Your task to perform on an android device: Show the shopping cart on bestbuy. Add "alienware aurora" to the cart on bestbuy Image 0: 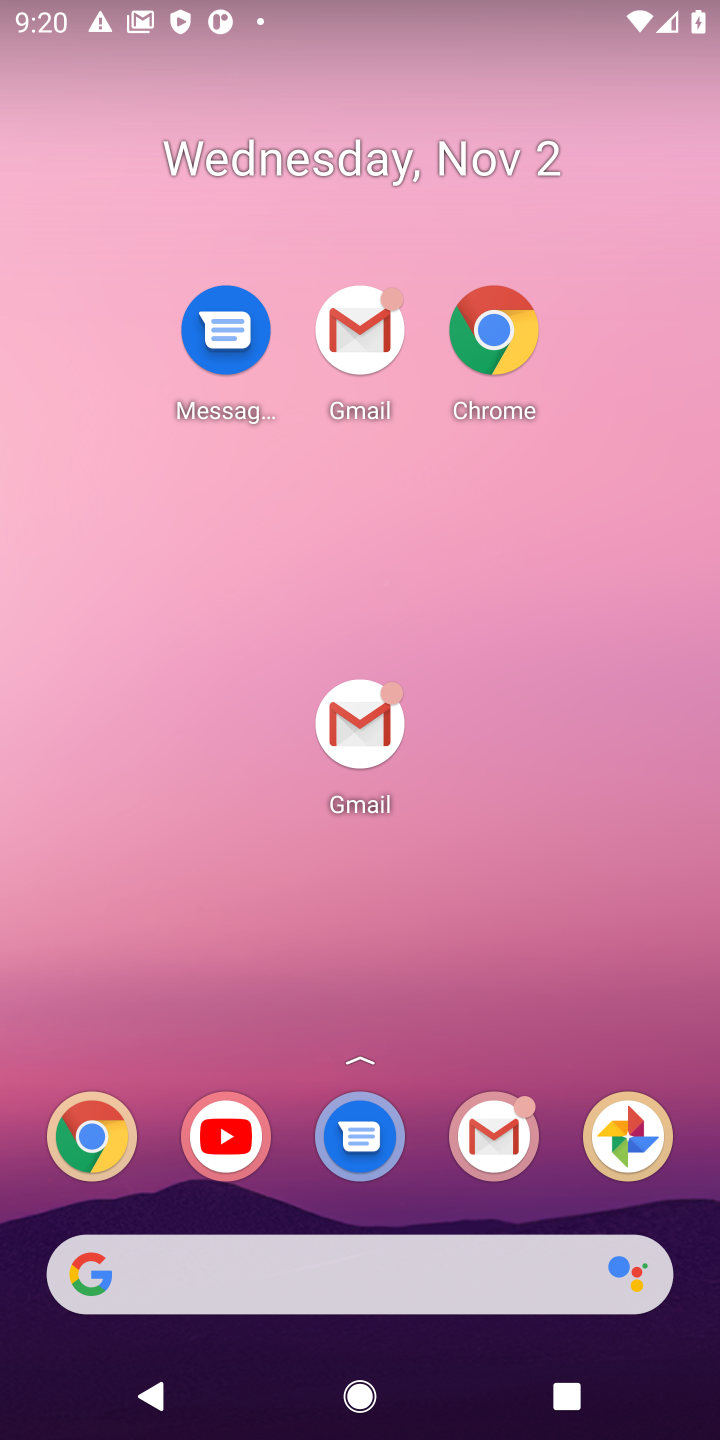
Step 0: drag from (306, 1215) to (297, 228)
Your task to perform on an android device: Show the shopping cart on bestbuy. Add "alienware aurora" to the cart on bestbuy Image 1: 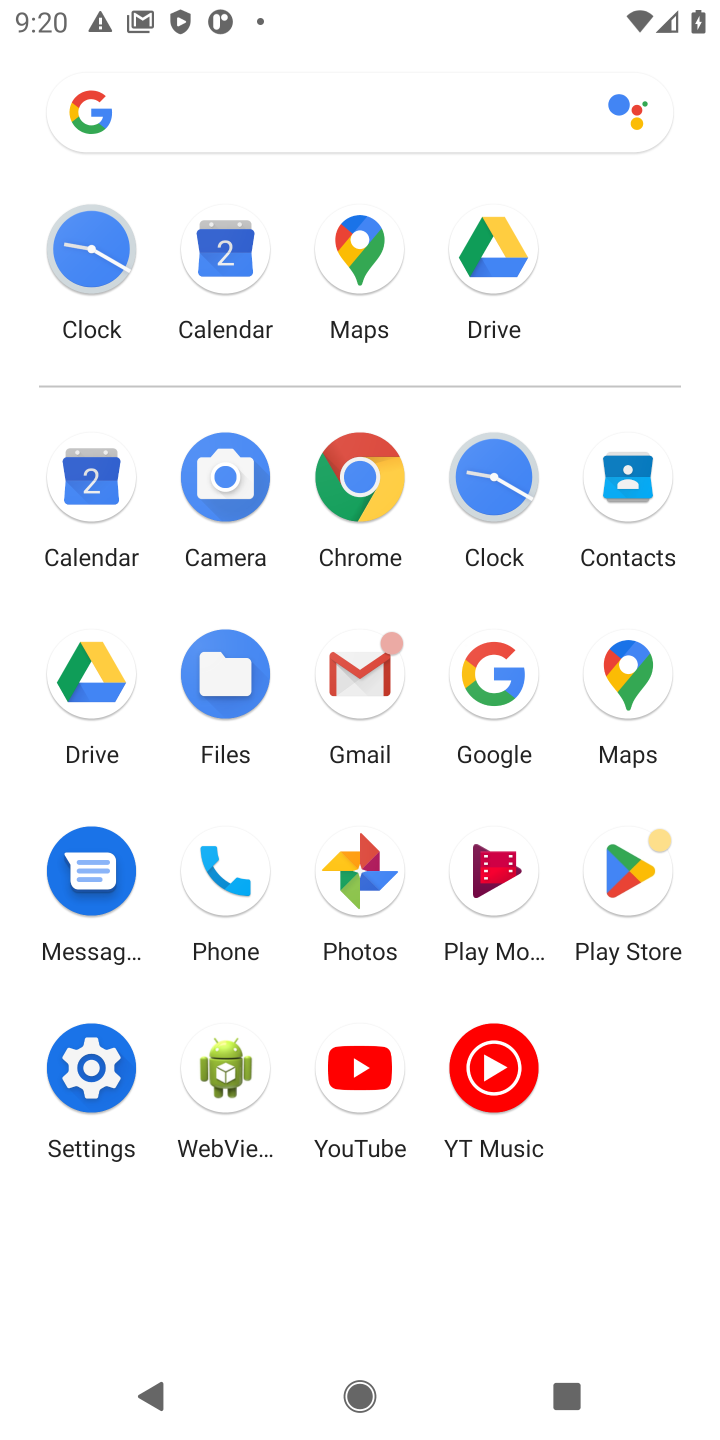
Step 1: click (481, 665)
Your task to perform on an android device: Show the shopping cart on bestbuy. Add "alienware aurora" to the cart on bestbuy Image 2: 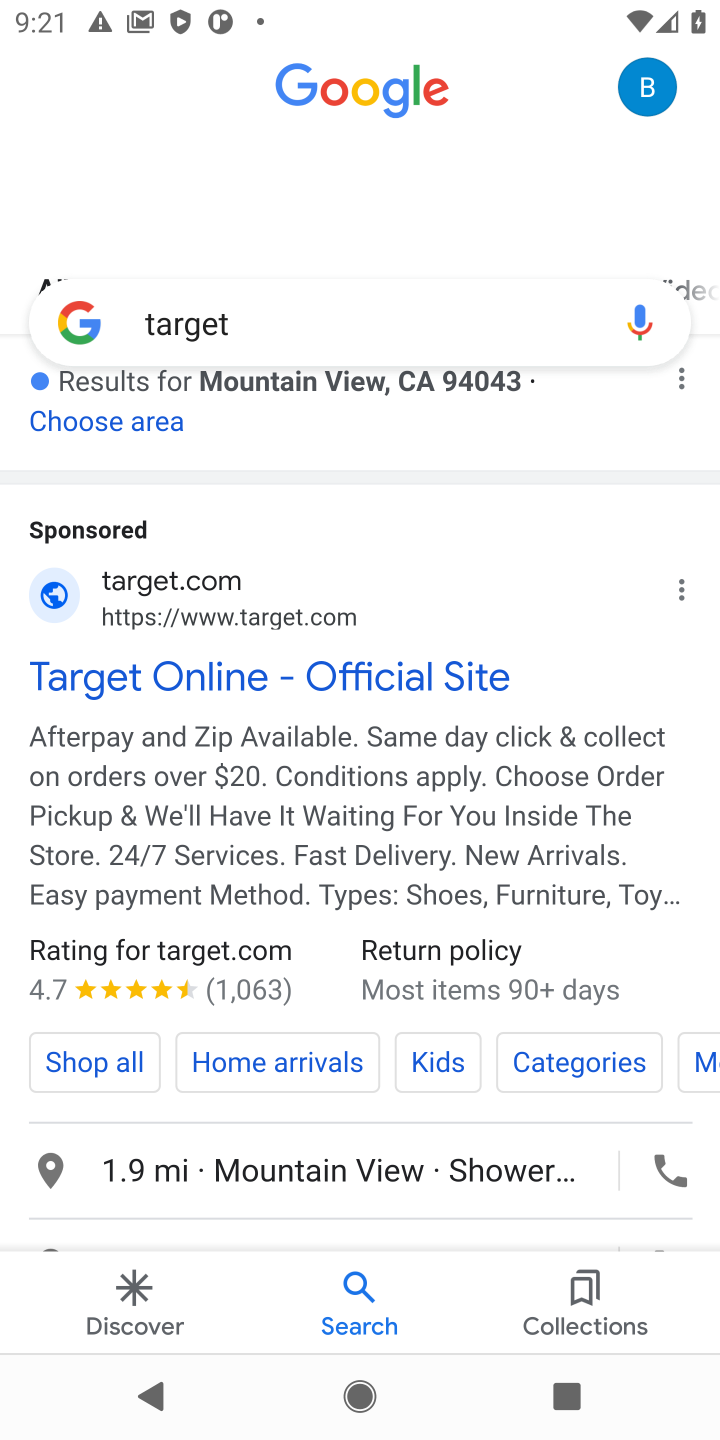
Step 2: click (336, 311)
Your task to perform on an android device: Show the shopping cart on bestbuy. Add "alienware aurora" to the cart on bestbuy Image 3: 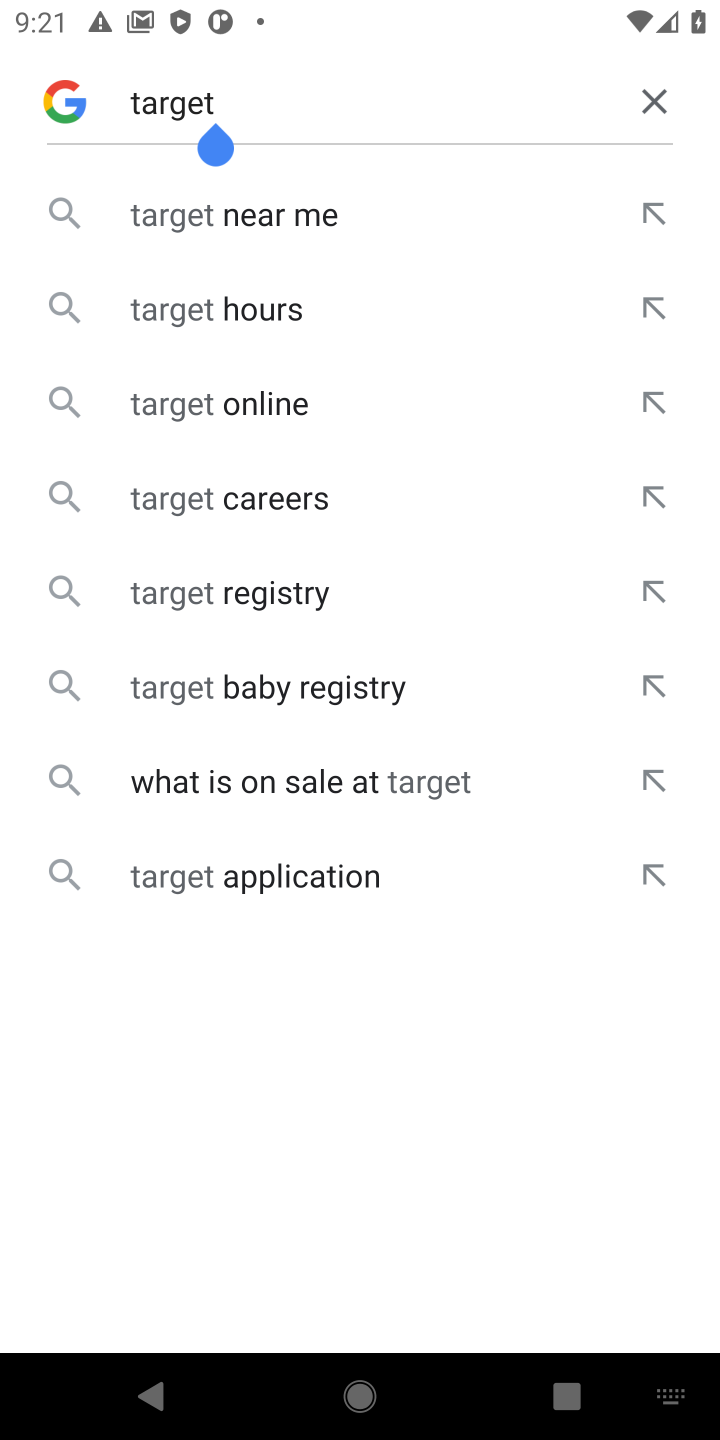
Step 3: click (646, 91)
Your task to perform on an android device: Show the shopping cart on bestbuy. Add "alienware aurora" to the cart on bestbuy Image 4: 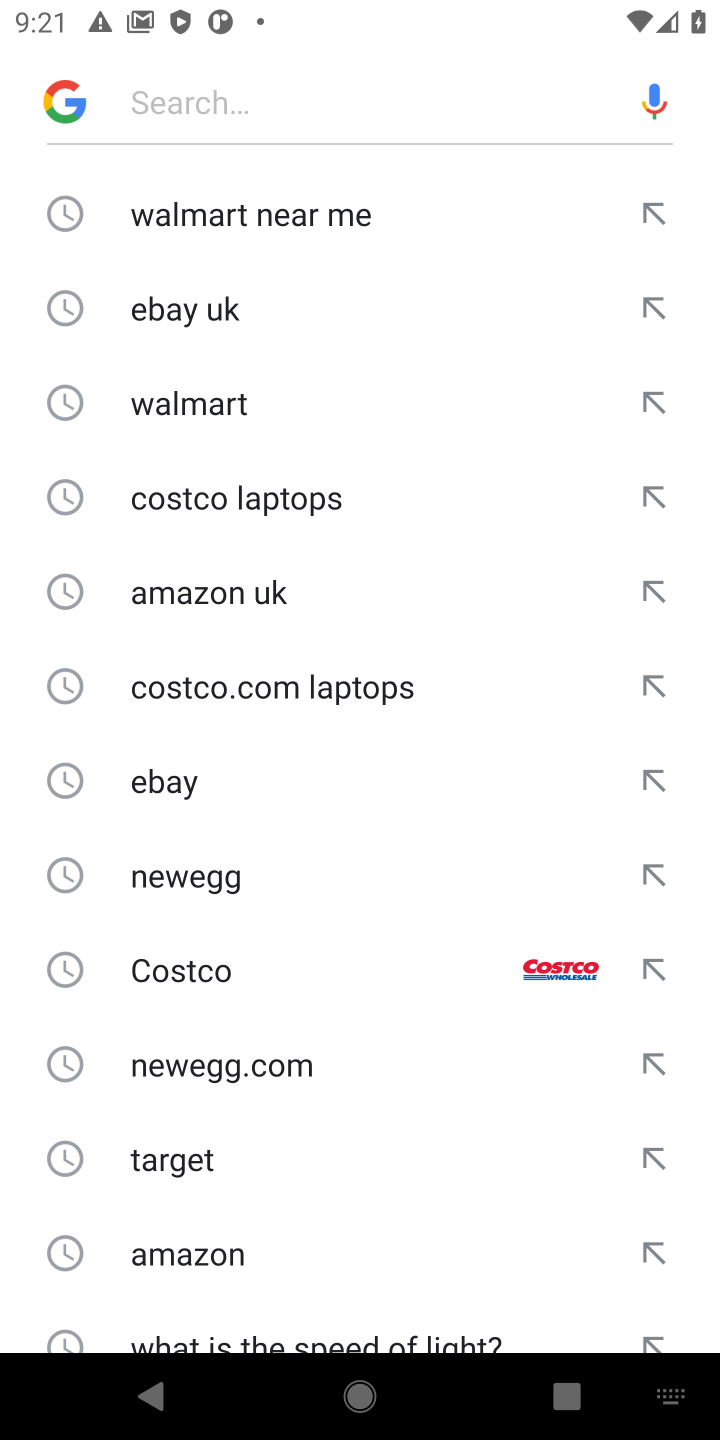
Step 4: click (272, 113)
Your task to perform on an android device: Show the shopping cart on bestbuy. Add "alienware aurora" to the cart on bestbuy Image 5: 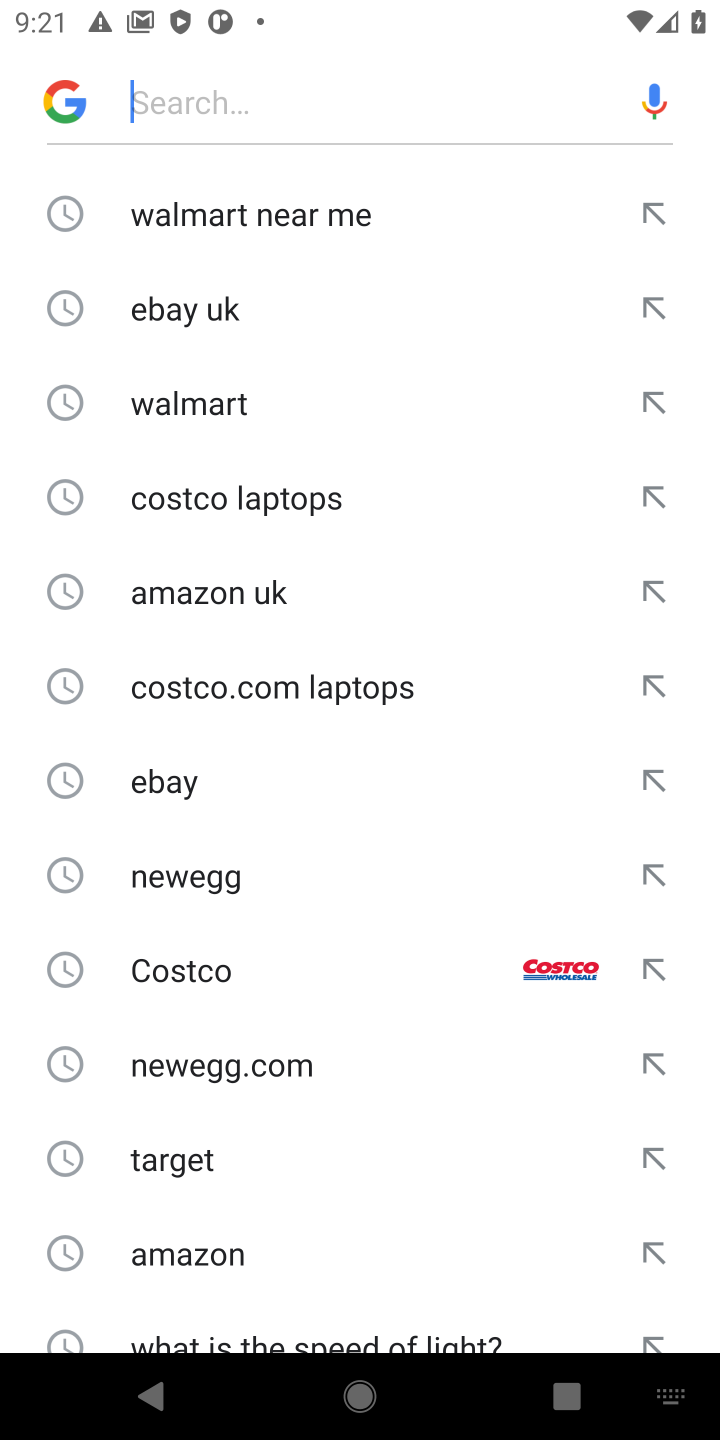
Step 5: click (272, 113)
Your task to perform on an android device: Show the shopping cart on bestbuy. Add "alienware aurora" to the cart on bestbuy Image 6: 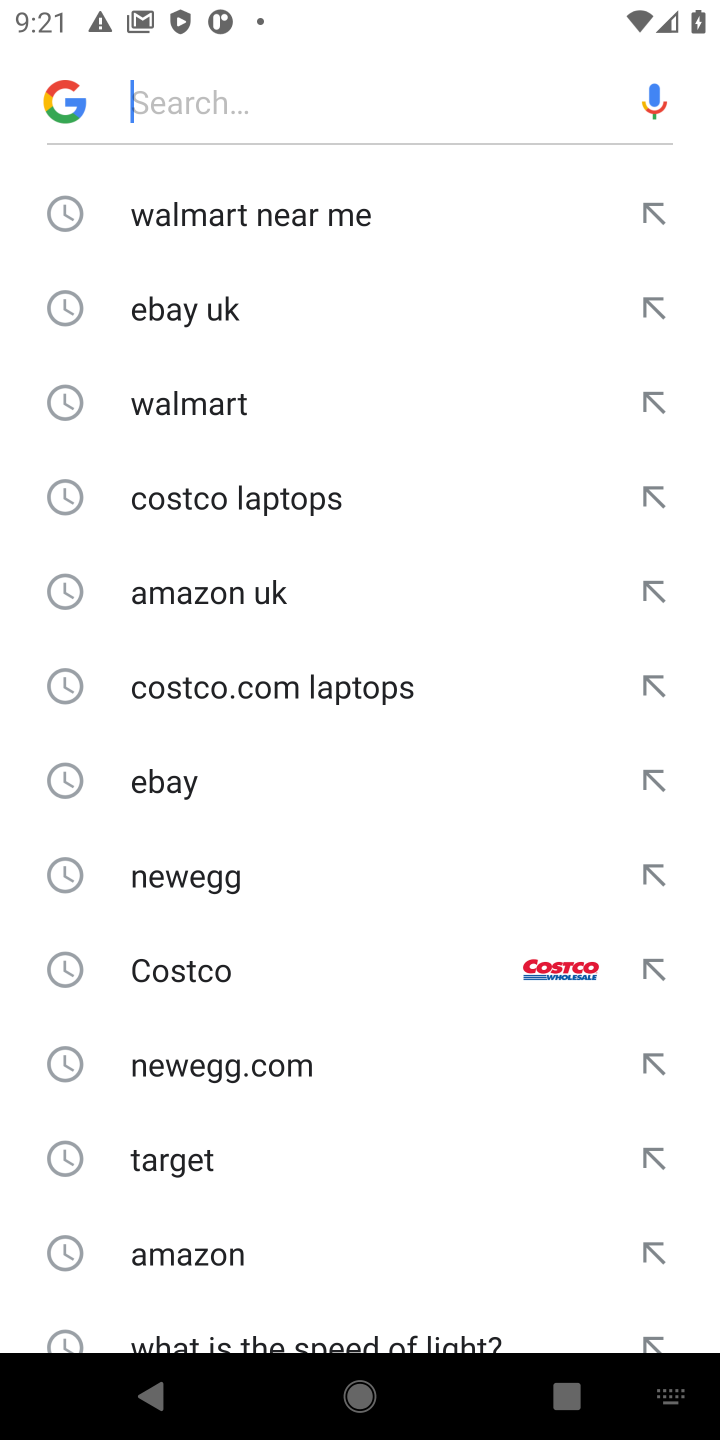
Step 6: type "bestbuy "
Your task to perform on an android device: Show the shopping cart on bestbuy. Add "alienware aurora" to the cart on bestbuy Image 7: 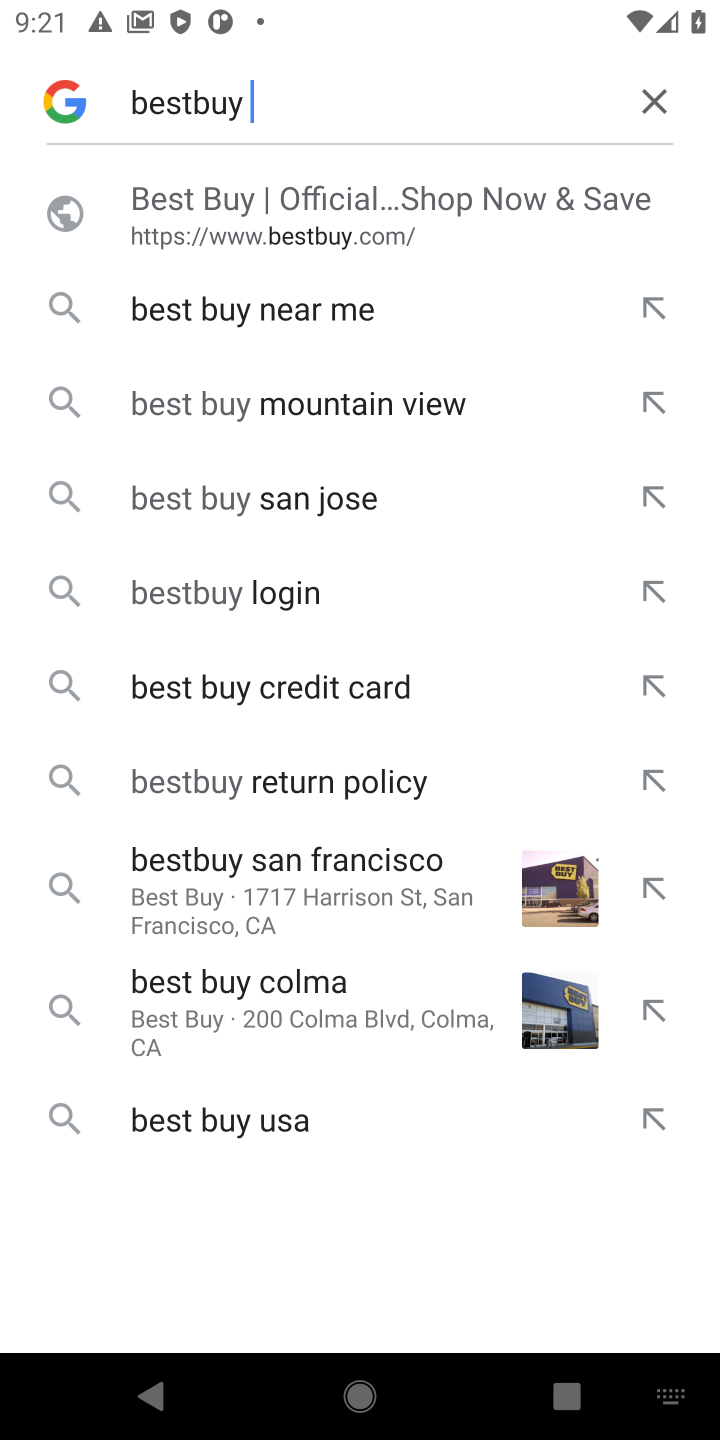
Step 7: click (155, 221)
Your task to perform on an android device: Show the shopping cart on bestbuy. Add "alienware aurora" to the cart on bestbuy Image 8: 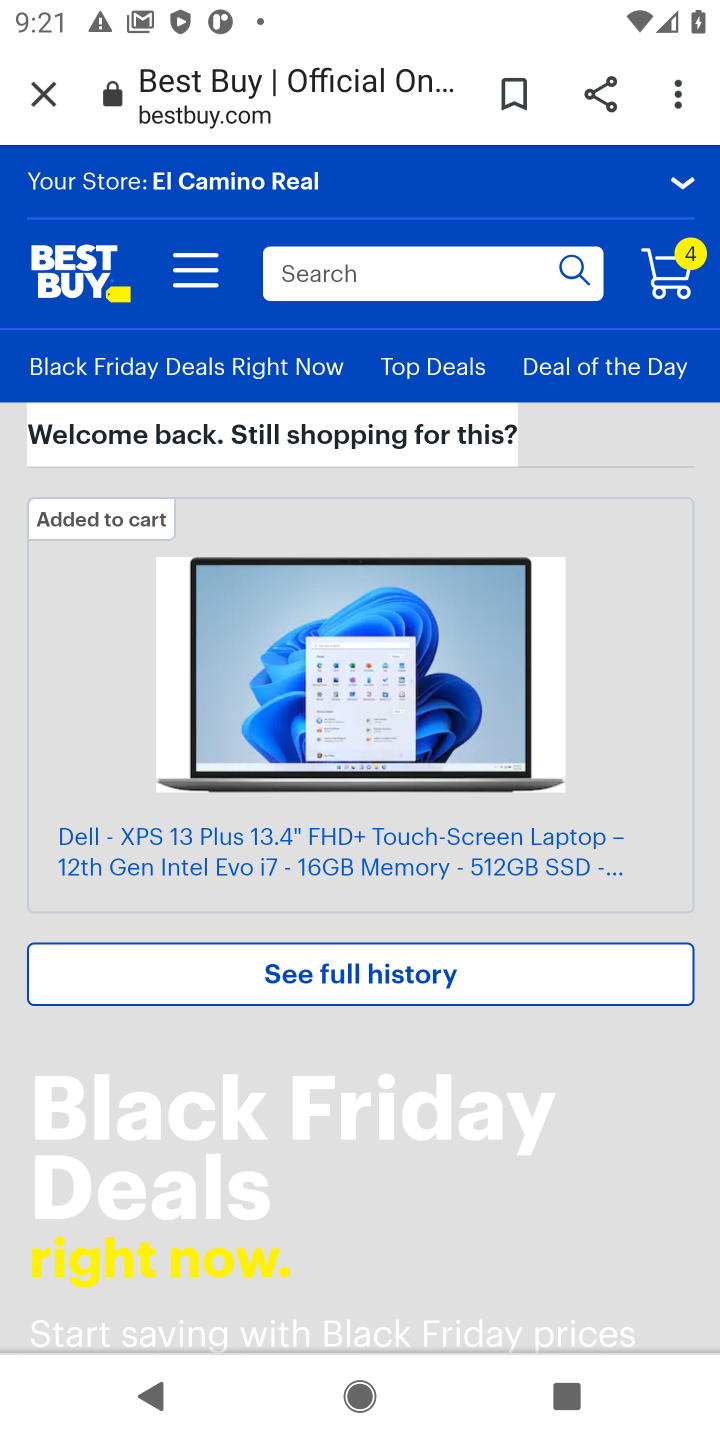
Step 8: click (323, 271)
Your task to perform on an android device: Show the shopping cart on bestbuy. Add "alienware aurora" to the cart on bestbuy Image 9: 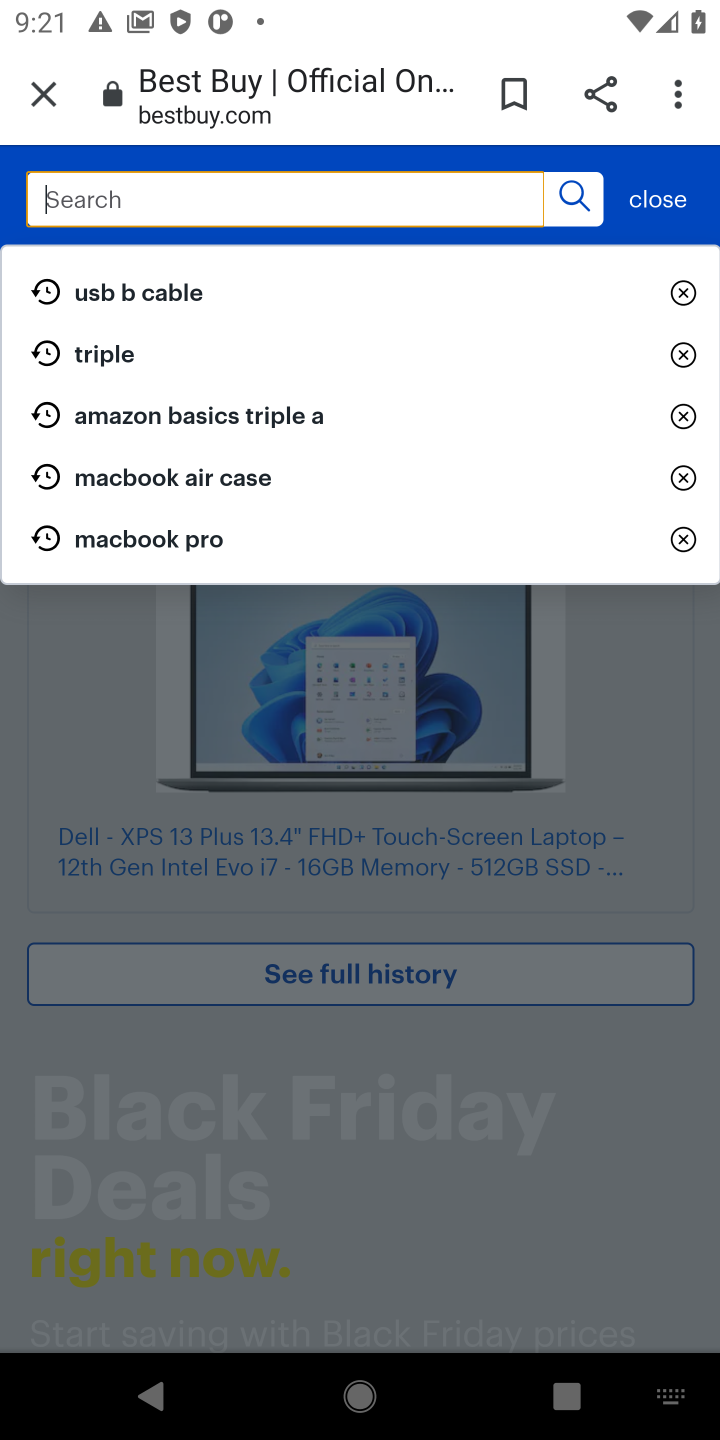
Step 9: click (328, 200)
Your task to perform on an android device: Show the shopping cart on bestbuy. Add "alienware aurora" to the cart on bestbuy Image 10: 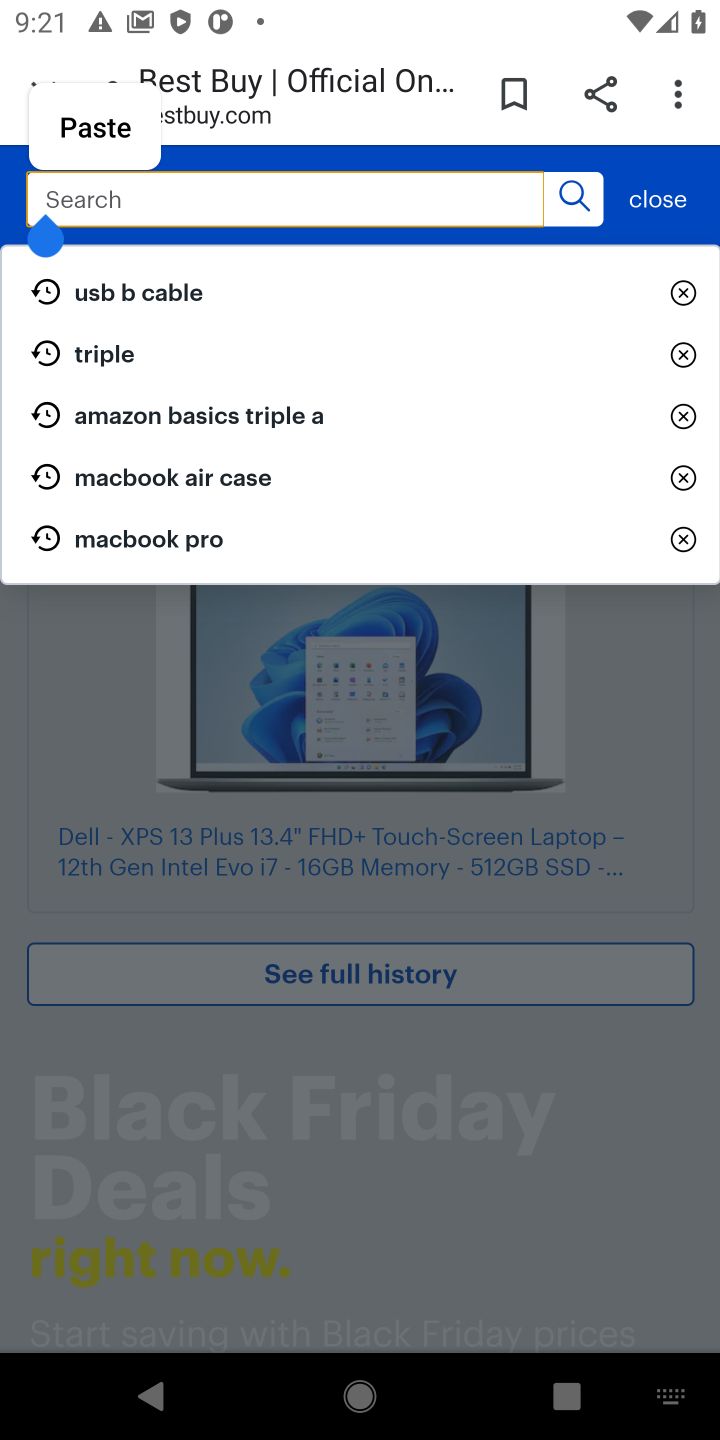
Step 10: type "alienware aurora "
Your task to perform on an android device: Show the shopping cart on bestbuy. Add "alienware aurora" to the cart on bestbuy Image 11: 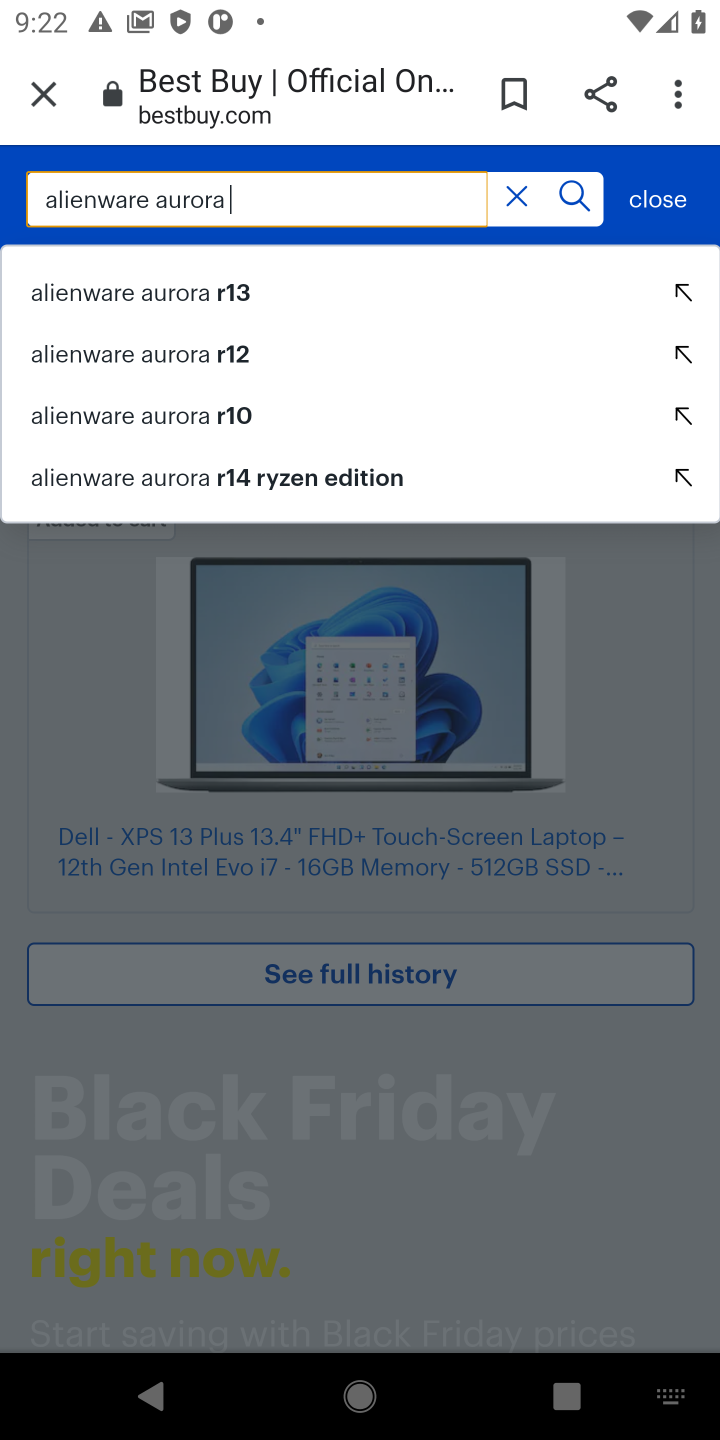
Step 11: click (135, 295)
Your task to perform on an android device: Show the shopping cart on bestbuy. Add "alienware aurora" to the cart on bestbuy Image 12: 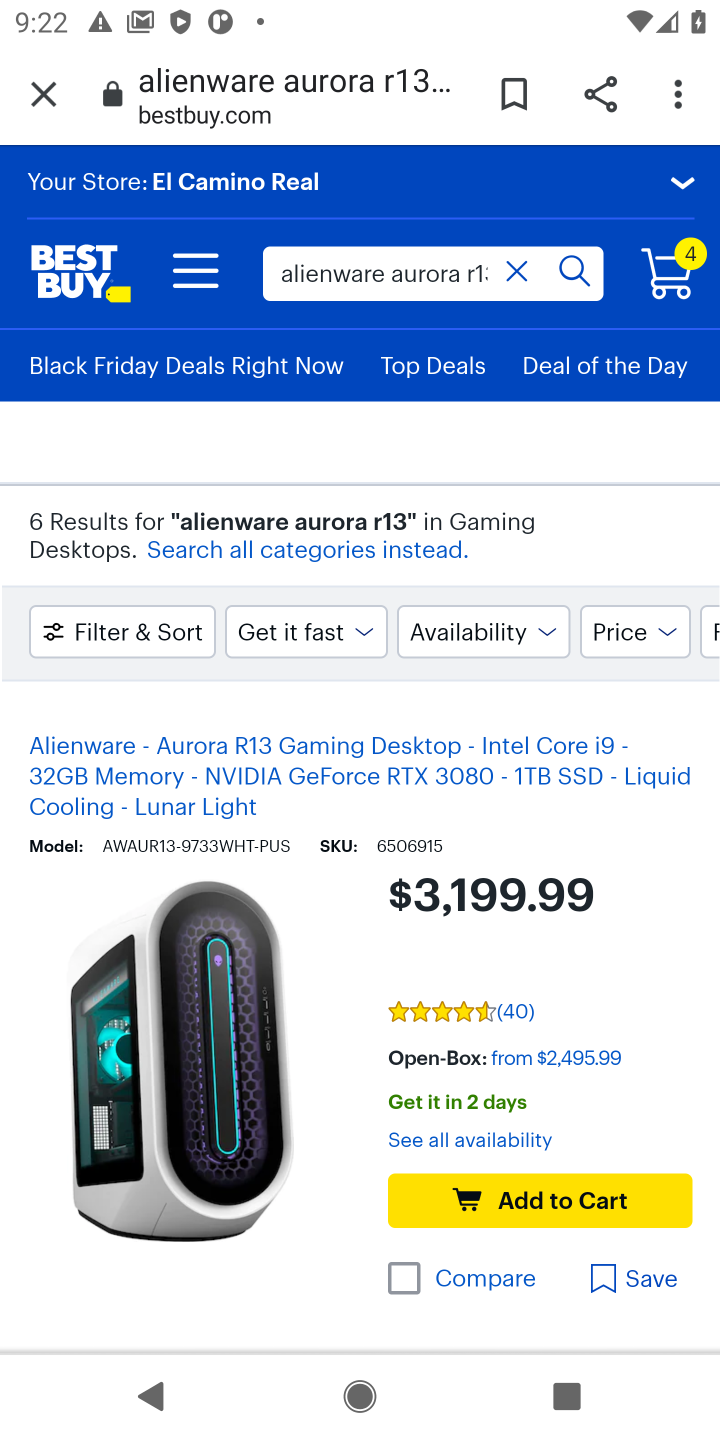
Step 12: click (523, 1154)
Your task to perform on an android device: Show the shopping cart on bestbuy. Add "alienware aurora" to the cart on bestbuy Image 13: 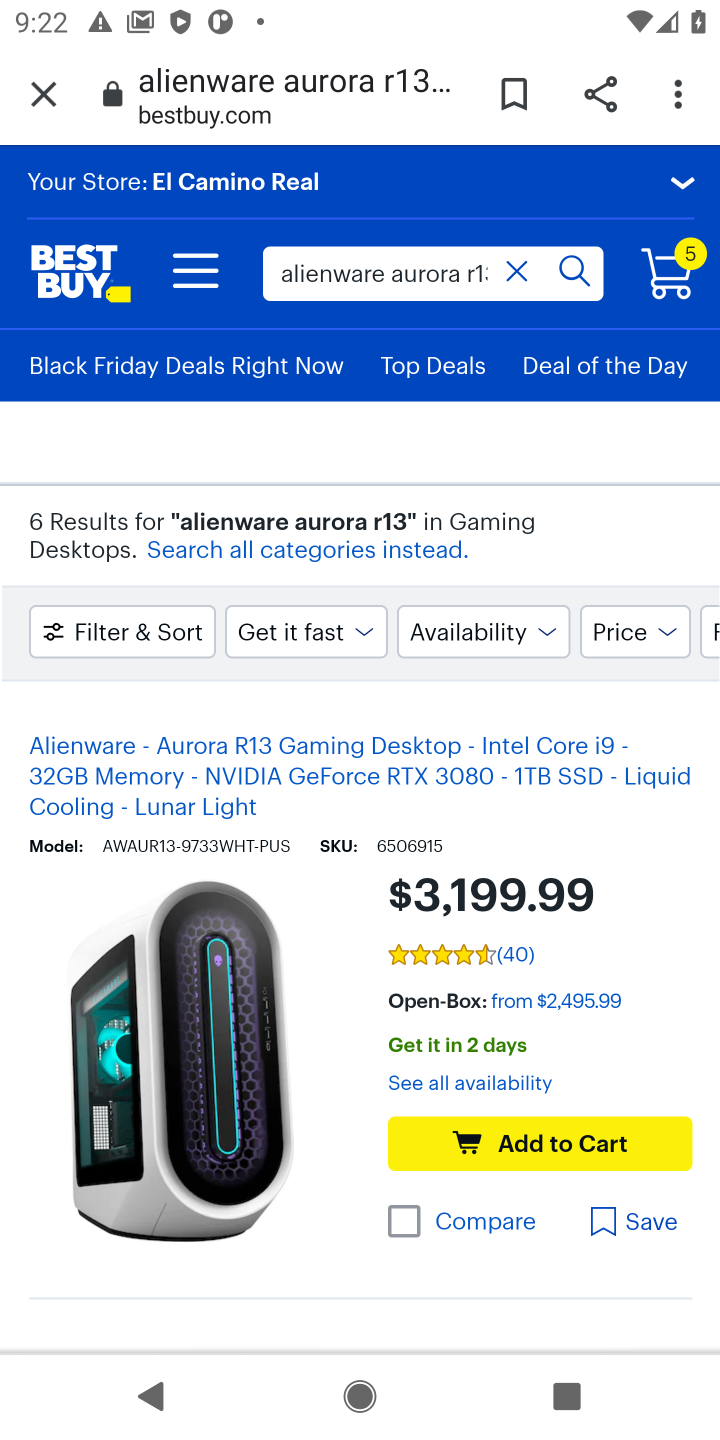
Step 13: task complete